Your task to perform on an android device: install app "WhatsApp Messenger" Image 0: 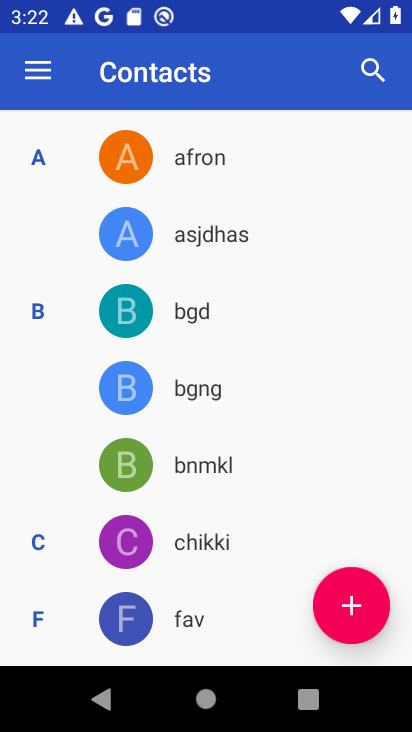
Step 0: press home button
Your task to perform on an android device: install app "WhatsApp Messenger" Image 1: 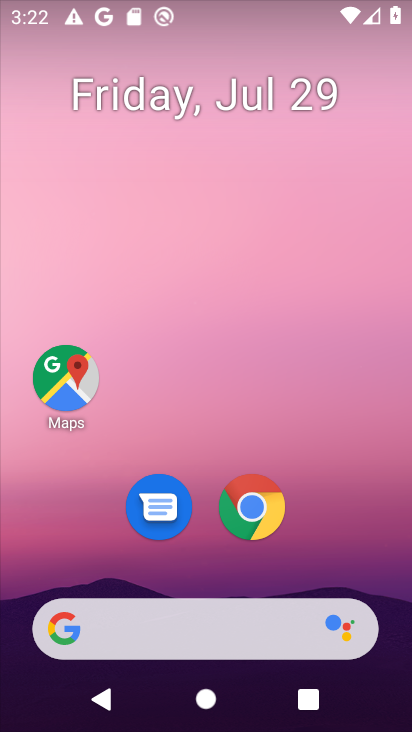
Step 1: click (181, 644)
Your task to perform on an android device: install app "WhatsApp Messenger" Image 2: 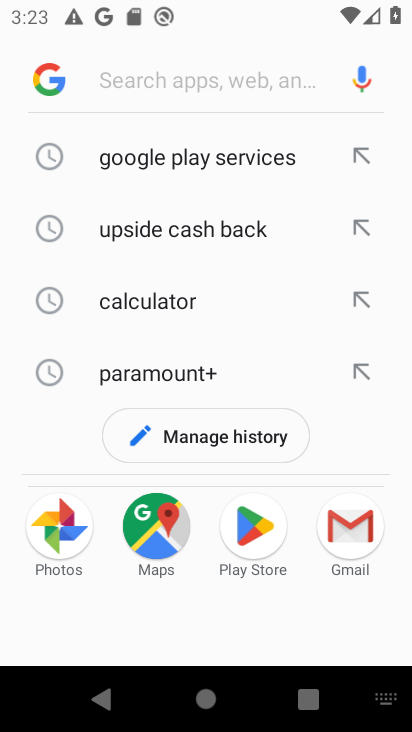
Step 2: type "whataap messanger"
Your task to perform on an android device: install app "WhatsApp Messenger" Image 3: 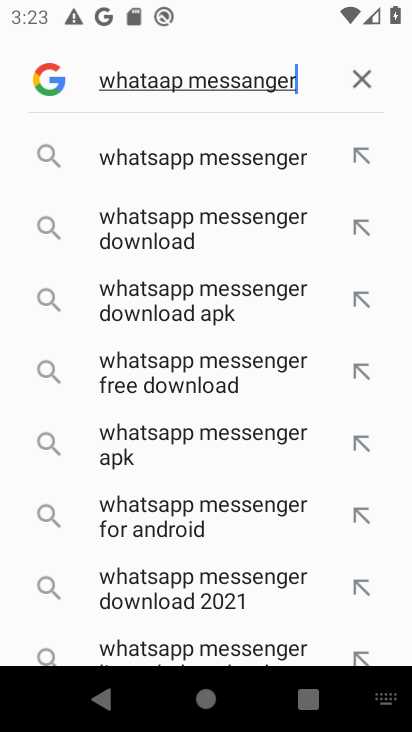
Step 3: click (247, 153)
Your task to perform on an android device: install app "WhatsApp Messenger" Image 4: 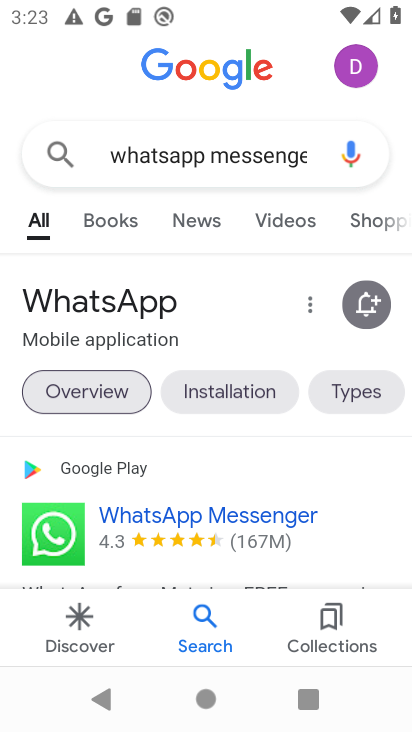
Step 4: drag from (336, 560) to (338, 370)
Your task to perform on an android device: install app "WhatsApp Messenger" Image 5: 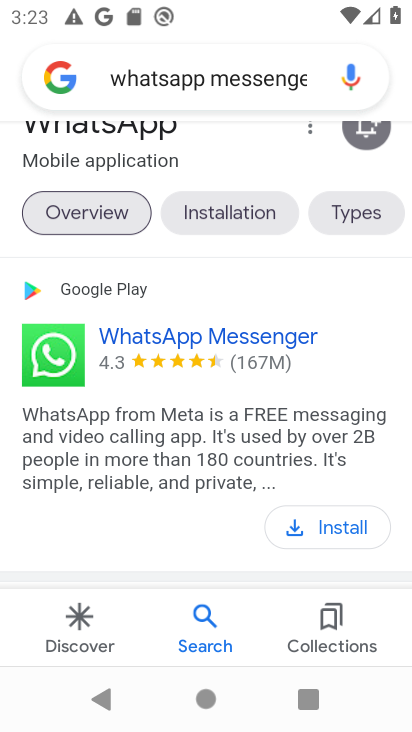
Step 5: click (338, 535)
Your task to perform on an android device: install app "WhatsApp Messenger" Image 6: 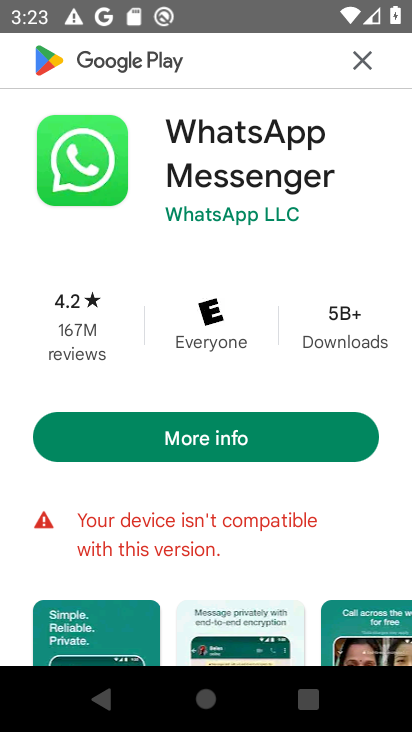
Step 6: task complete